Your task to perform on an android device: toggle improve location accuracy Image 0: 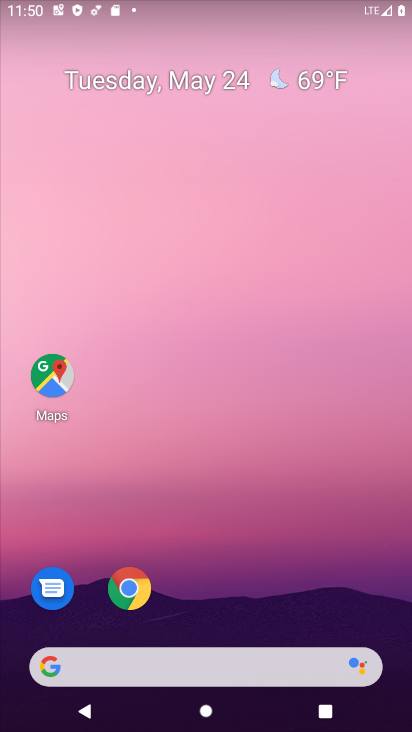
Step 0: drag from (227, 635) to (240, 57)
Your task to perform on an android device: toggle improve location accuracy Image 1: 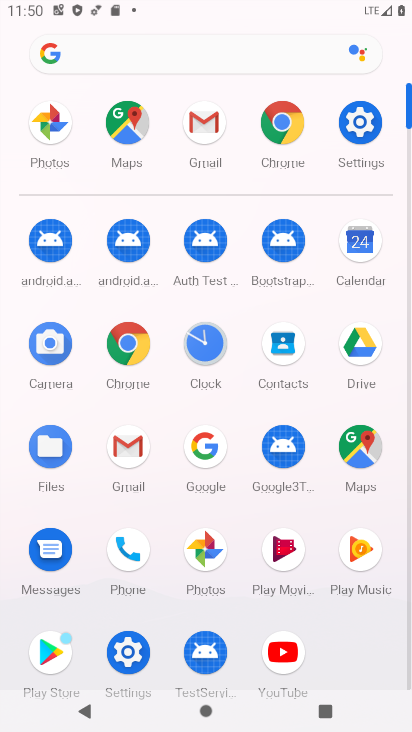
Step 1: click (357, 118)
Your task to perform on an android device: toggle improve location accuracy Image 2: 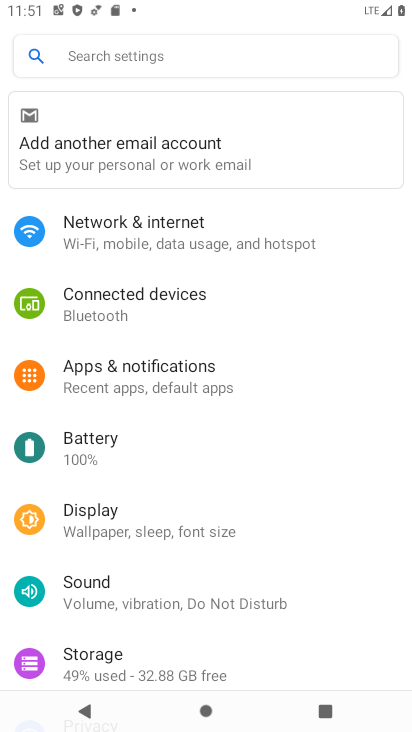
Step 2: drag from (139, 647) to (151, 93)
Your task to perform on an android device: toggle improve location accuracy Image 3: 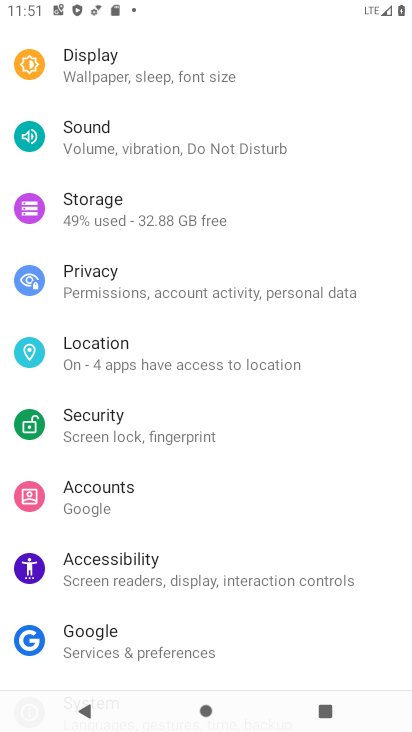
Step 3: click (144, 340)
Your task to perform on an android device: toggle improve location accuracy Image 4: 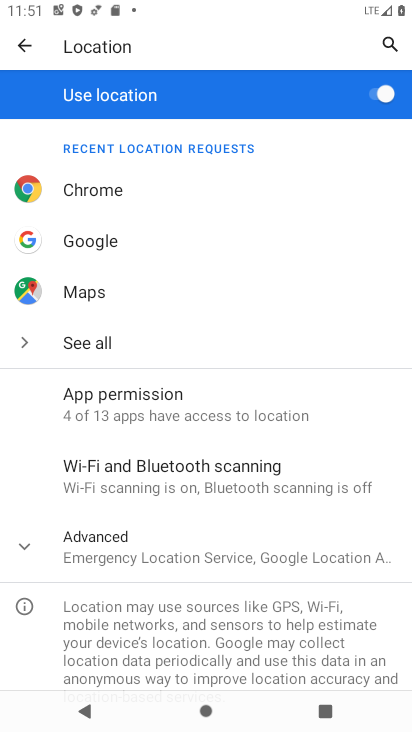
Step 4: click (20, 537)
Your task to perform on an android device: toggle improve location accuracy Image 5: 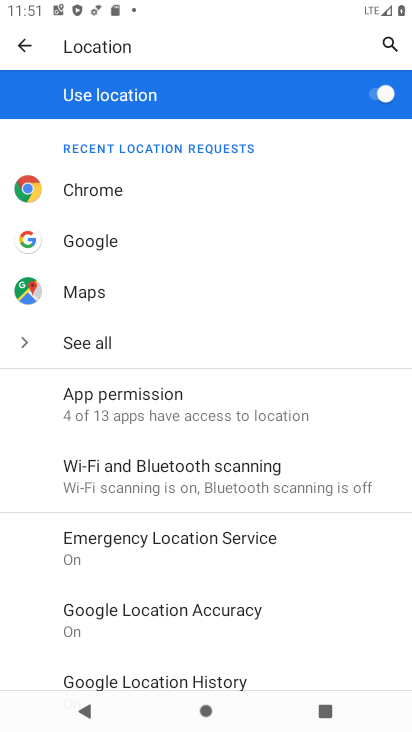
Step 5: click (128, 615)
Your task to perform on an android device: toggle improve location accuracy Image 6: 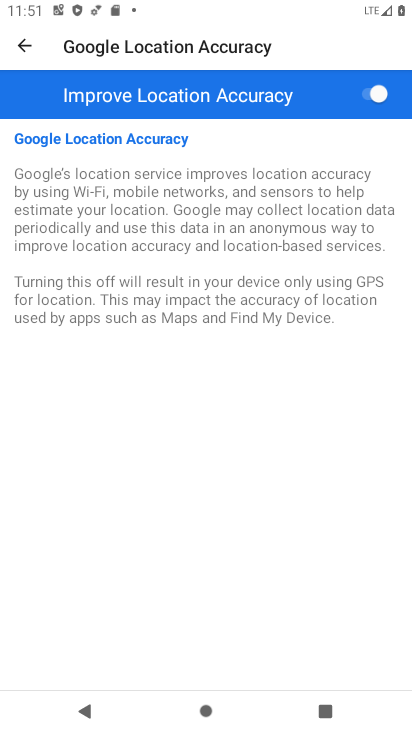
Step 6: task complete